Your task to perform on an android device: turn on the 12-hour format for clock Image 0: 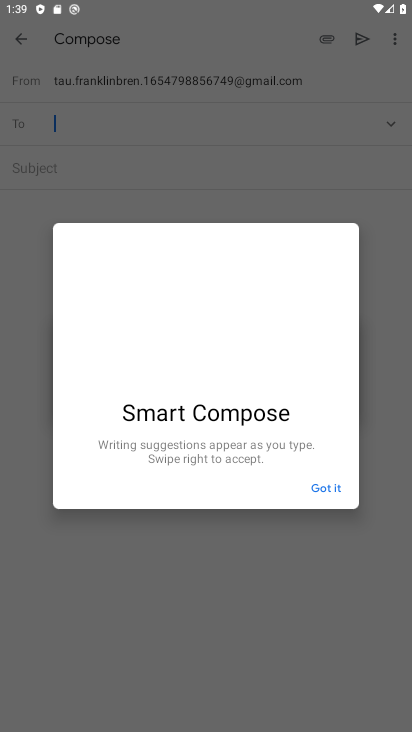
Step 0: press home button
Your task to perform on an android device: turn on the 12-hour format for clock Image 1: 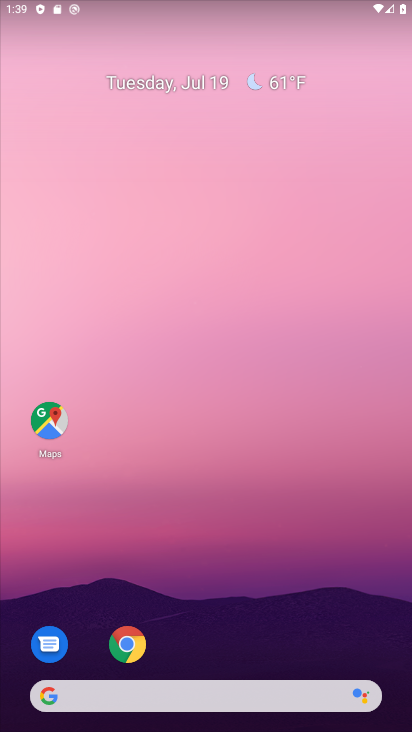
Step 1: drag from (170, 668) to (114, 113)
Your task to perform on an android device: turn on the 12-hour format for clock Image 2: 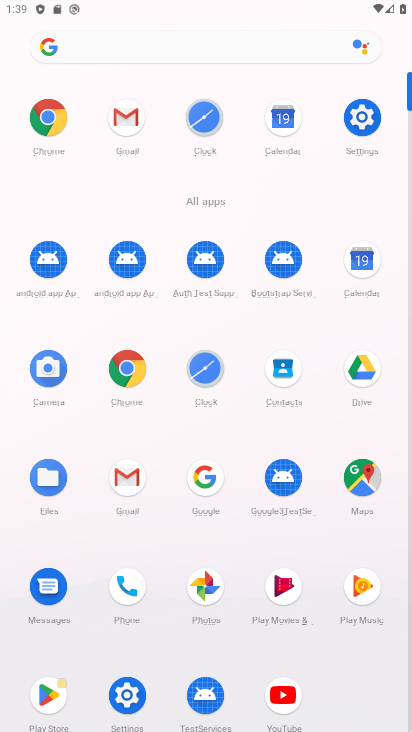
Step 2: click (212, 364)
Your task to perform on an android device: turn on the 12-hour format for clock Image 3: 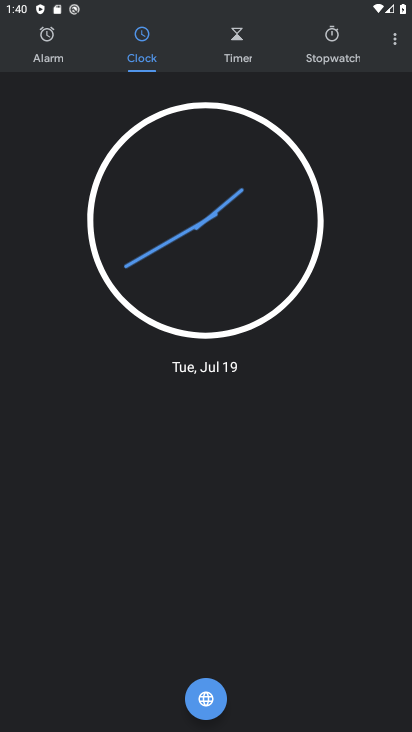
Step 3: click (392, 45)
Your task to perform on an android device: turn on the 12-hour format for clock Image 4: 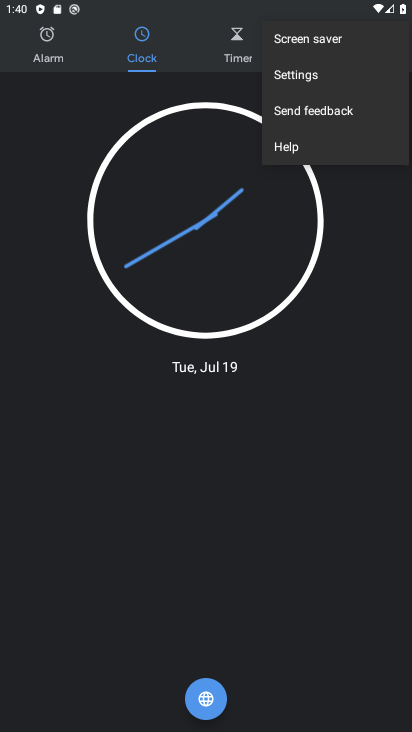
Step 4: click (310, 66)
Your task to perform on an android device: turn on the 12-hour format for clock Image 5: 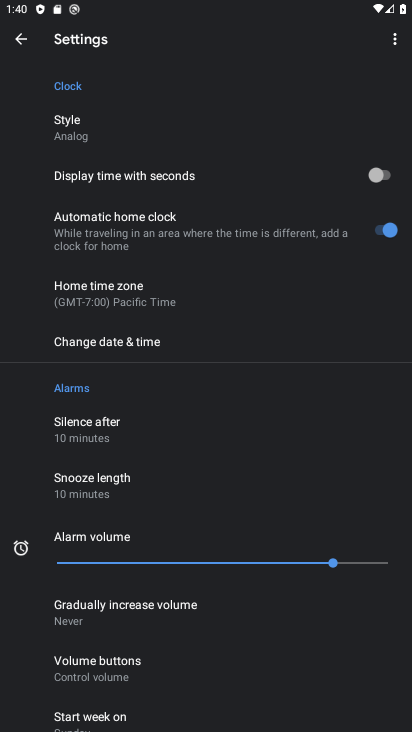
Step 5: click (110, 350)
Your task to perform on an android device: turn on the 12-hour format for clock Image 6: 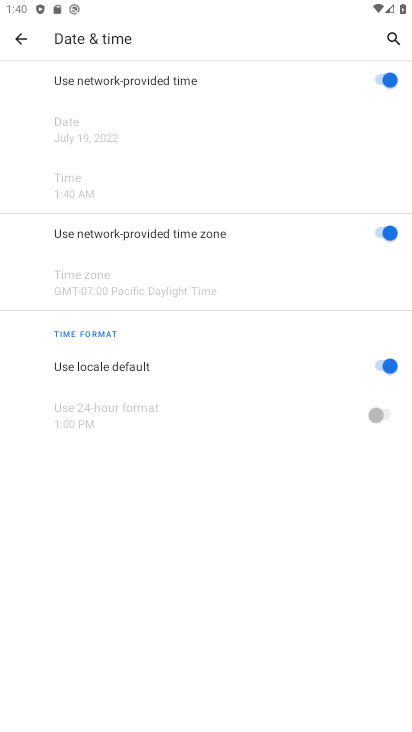
Step 6: task complete